Your task to perform on an android device: Go to Maps Image 0: 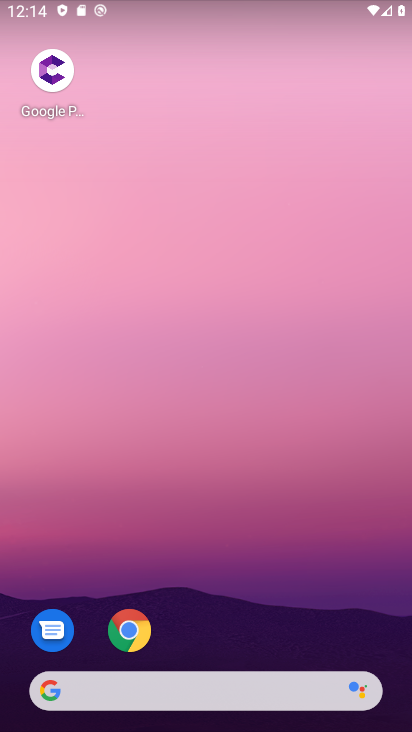
Step 0: drag from (266, 707) to (318, 234)
Your task to perform on an android device: Go to Maps Image 1: 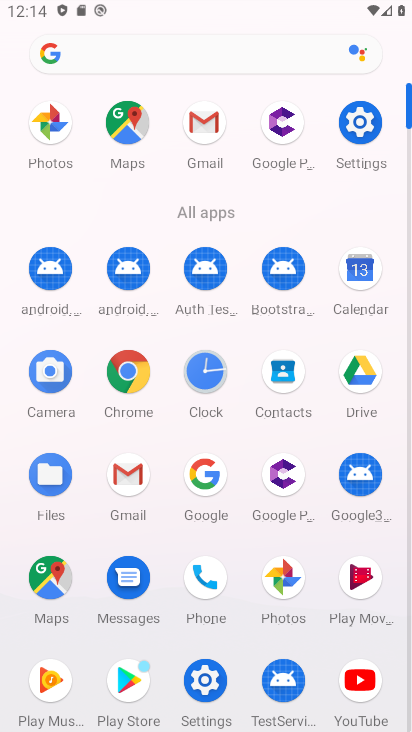
Step 1: click (57, 591)
Your task to perform on an android device: Go to Maps Image 2: 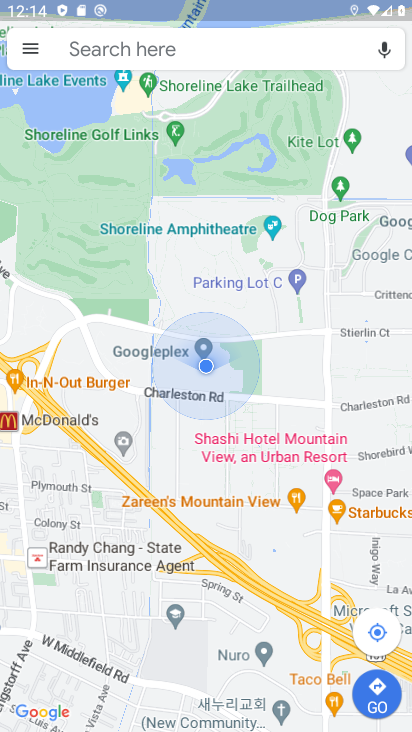
Step 2: click (367, 624)
Your task to perform on an android device: Go to Maps Image 3: 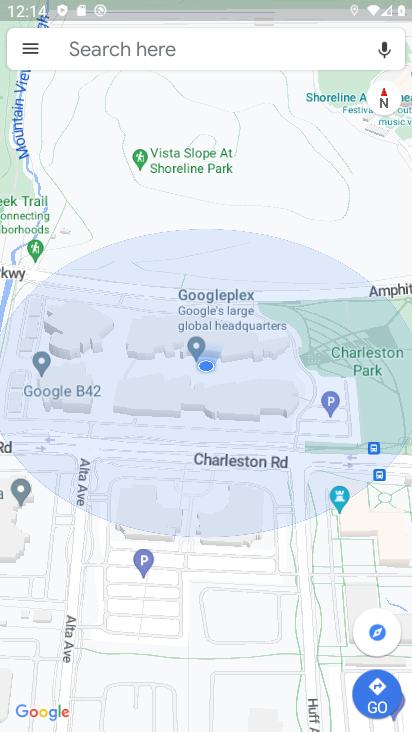
Step 3: task complete